Your task to perform on an android device: turn on bluetooth scan Image 0: 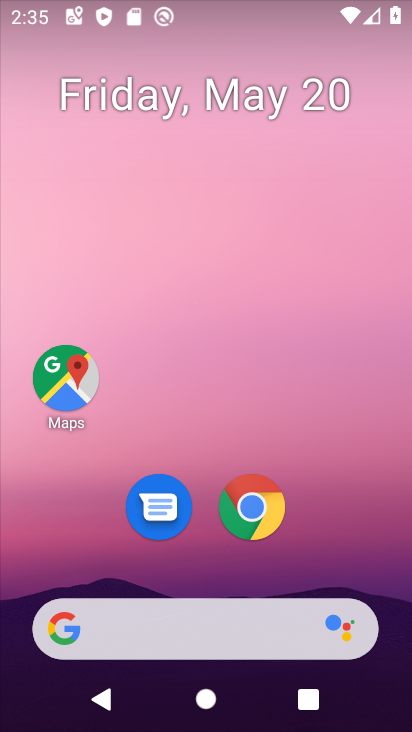
Step 0: drag from (233, 728) to (235, 195)
Your task to perform on an android device: turn on bluetooth scan Image 1: 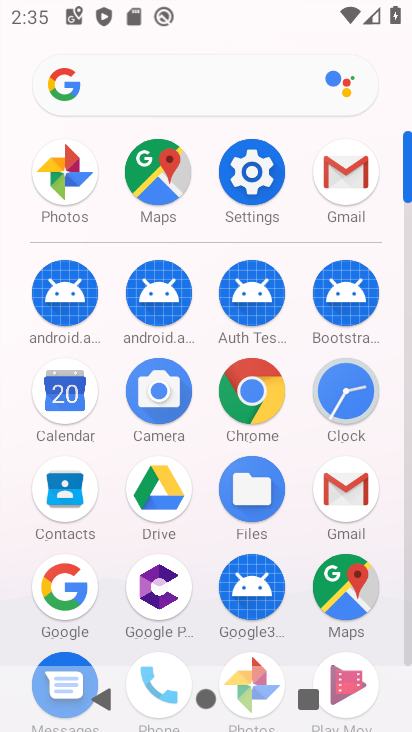
Step 1: click (242, 173)
Your task to perform on an android device: turn on bluetooth scan Image 2: 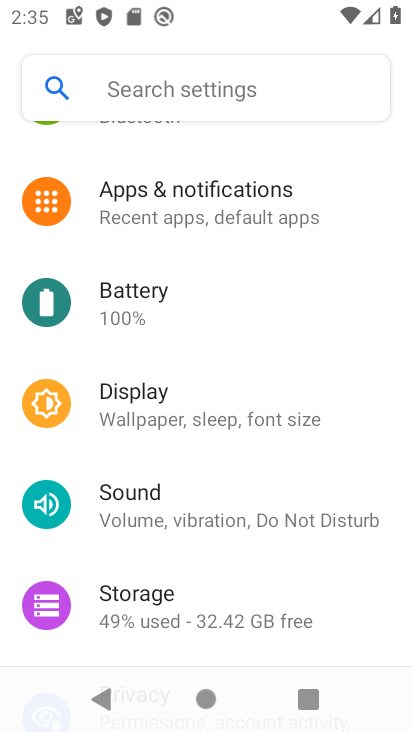
Step 2: drag from (163, 602) to (168, 226)
Your task to perform on an android device: turn on bluetooth scan Image 3: 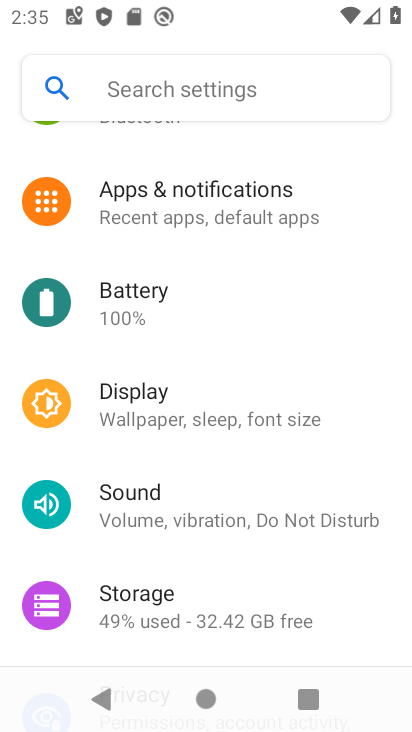
Step 3: drag from (215, 574) to (208, 264)
Your task to perform on an android device: turn on bluetooth scan Image 4: 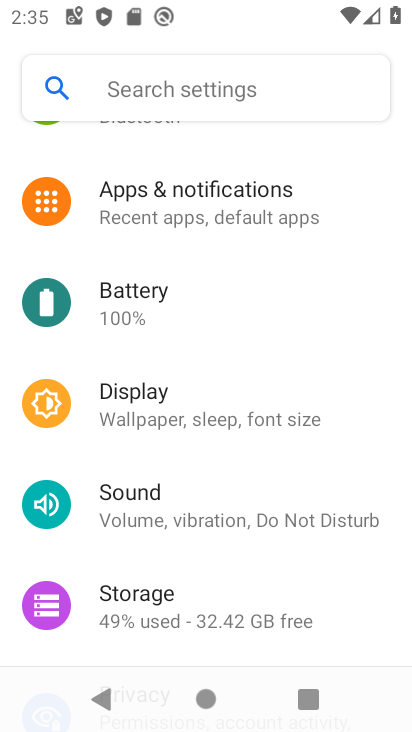
Step 4: drag from (214, 603) to (232, 186)
Your task to perform on an android device: turn on bluetooth scan Image 5: 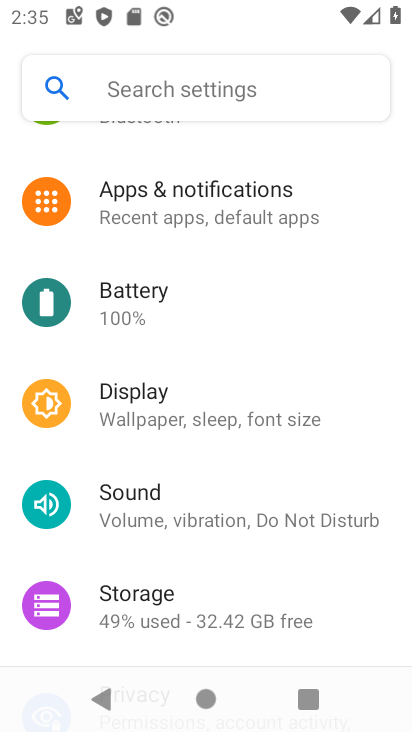
Step 5: drag from (252, 600) to (249, 371)
Your task to perform on an android device: turn on bluetooth scan Image 6: 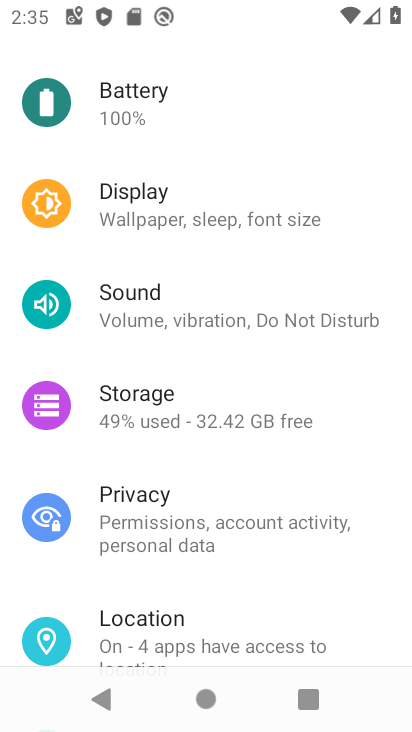
Step 6: click (158, 623)
Your task to perform on an android device: turn on bluetooth scan Image 7: 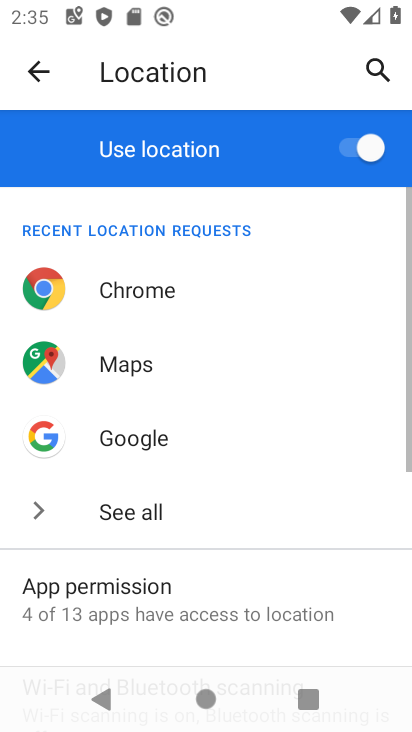
Step 7: drag from (171, 615) to (167, 294)
Your task to perform on an android device: turn on bluetooth scan Image 8: 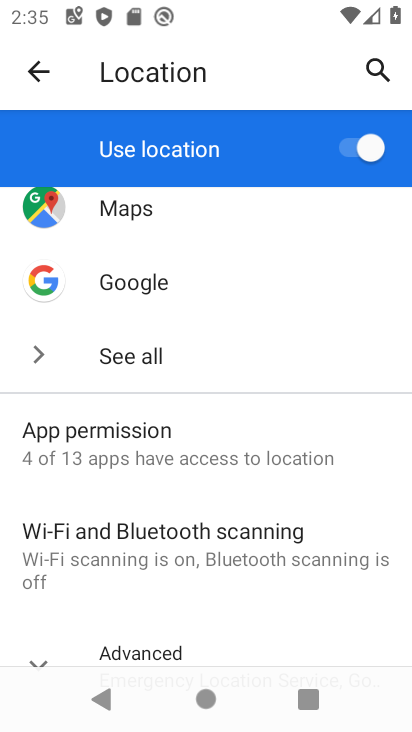
Step 8: click (224, 519)
Your task to perform on an android device: turn on bluetooth scan Image 9: 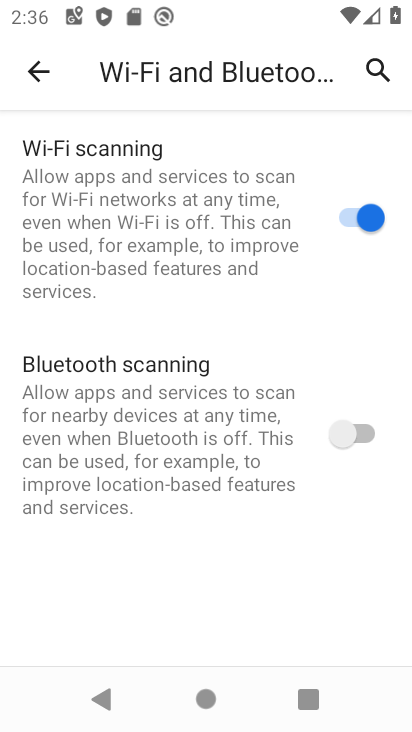
Step 9: click (358, 427)
Your task to perform on an android device: turn on bluetooth scan Image 10: 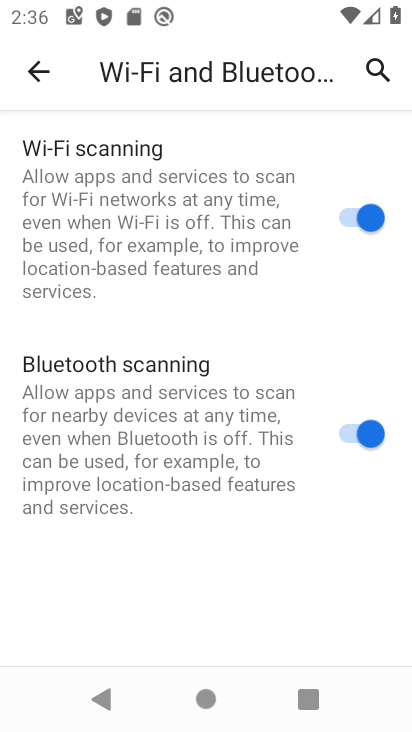
Step 10: task complete